Your task to perform on an android device: Search for Mexican restaurants on Maps Image 0: 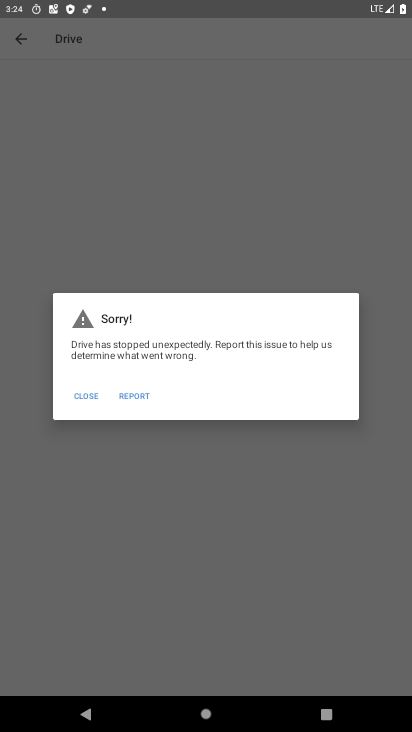
Step 0: press home button
Your task to perform on an android device: Search for Mexican restaurants on Maps Image 1: 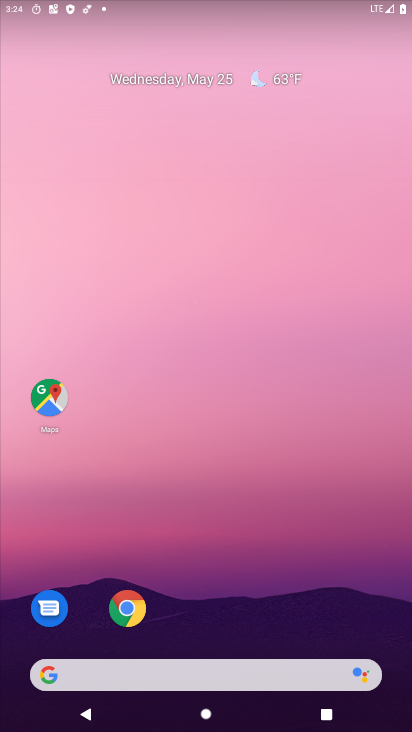
Step 1: click (43, 393)
Your task to perform on an android device: Search for Mexican restaurants on Maps Image 2: 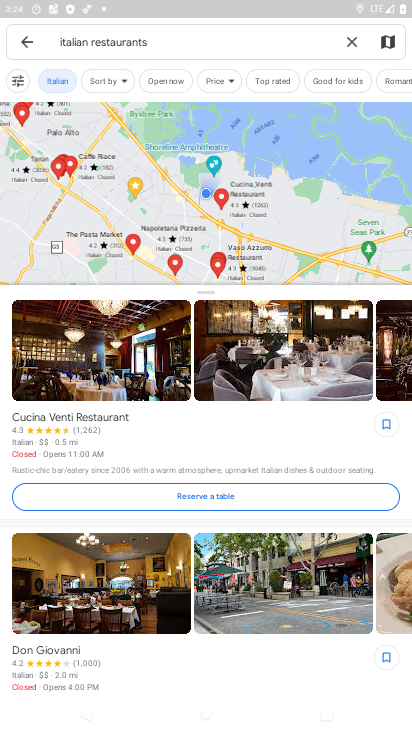
Step 2: click (173, 54)
Your task to perform on an android device: Search for Mexican restaurants on Maps Image 3: 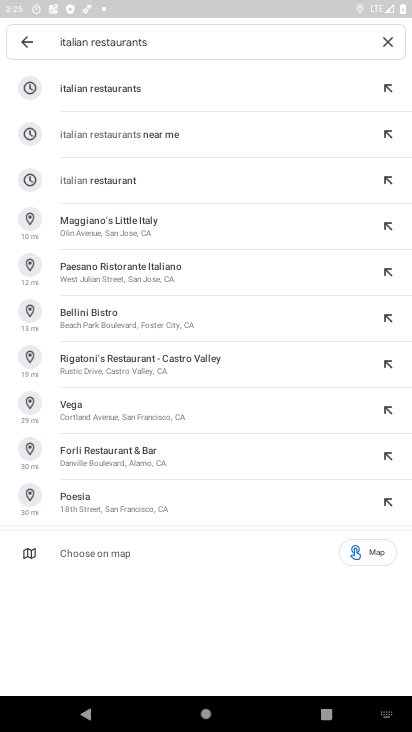
Step 3: click (172, 50)
Your task to perform on an android device: Search for Mexican restaurants on Maps Image 4: 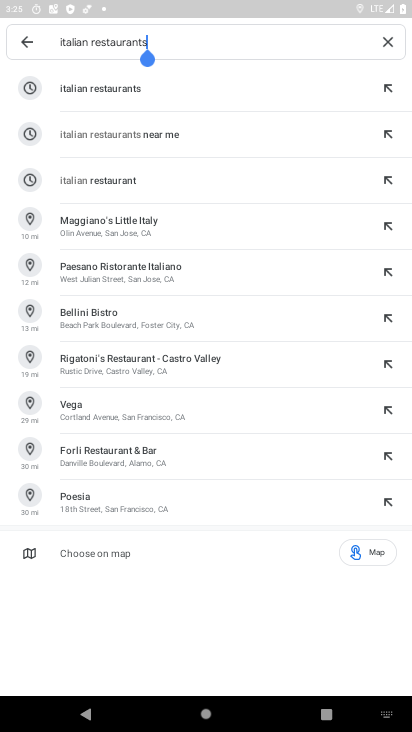
Step 4: click (386, 37)
Your task to perform on an android device: Search for Mexican restaurants on Maps Image 5: 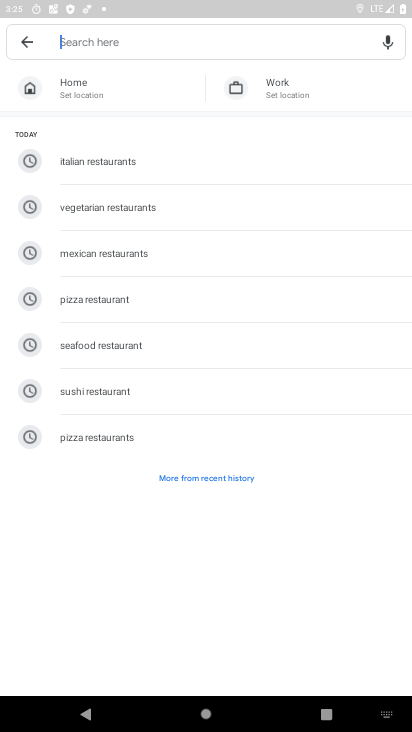
Step 5: type "mexican restaurants"
Your task to perform on an android device: Search for Mexican restaurants on Maps Image 6: 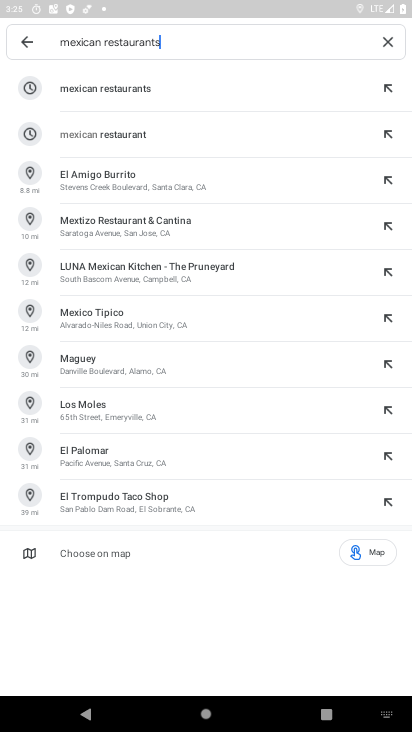
Step 6: click (131, 87)
Your task to perform on an android device: Search for Mexican restaurants on Maps Image 7: 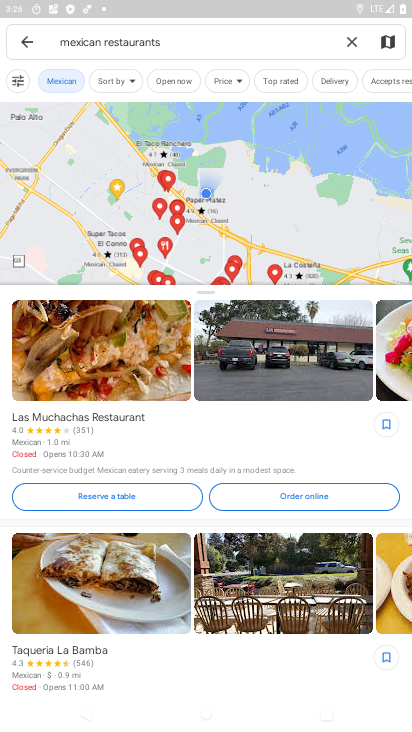
Step 7: task complete